Your task to perform on an android device: Go to display settings Image 0: 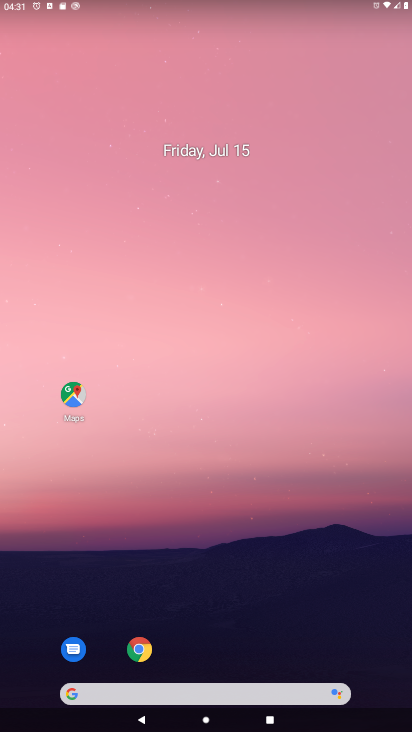
Step 0: drag from (383, 664) to (320, 30)
Your task to perform on an android device: Go to display settings Image 1: 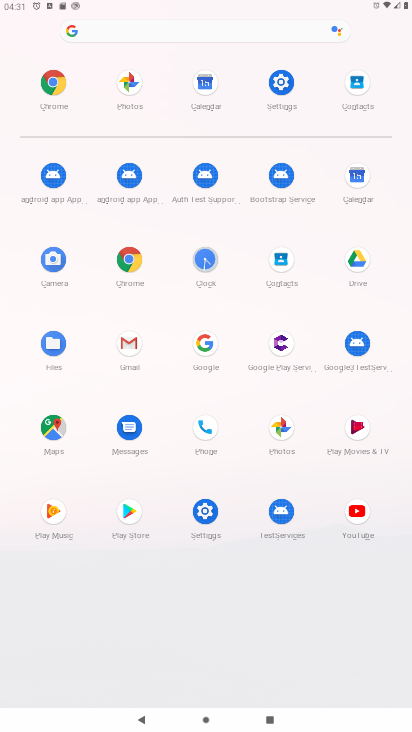
Step 1: click (206, 511)
Your task to perform on an android device: Go to display settings Image 2: 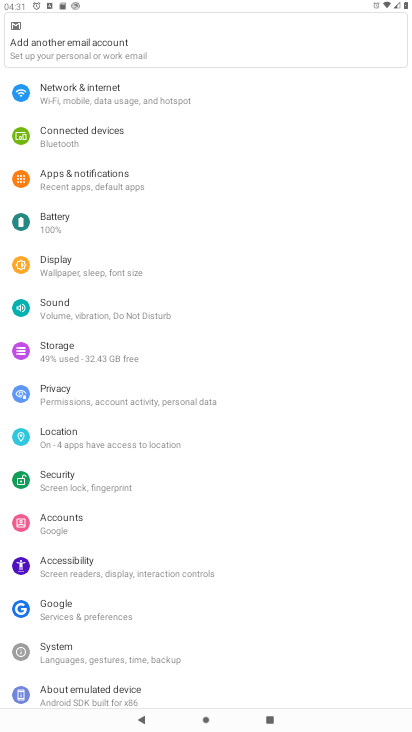
Step 2: click (59, 258)
Your task to perform on an android device: Go to display settings Image 3: 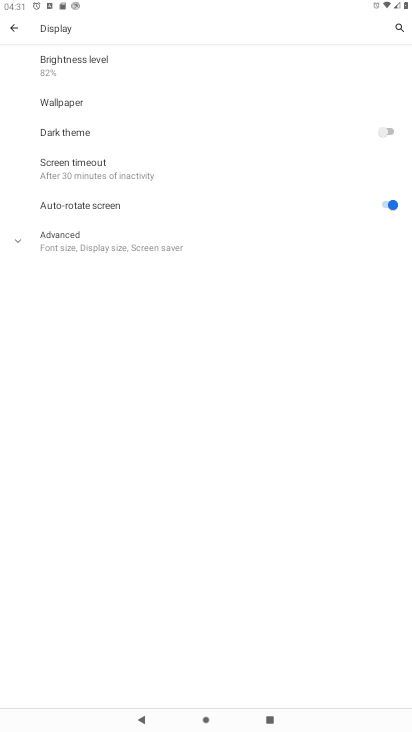
Step 3: click (20, 243)
Your task to perform on an android device: Go to display settings Image 4: 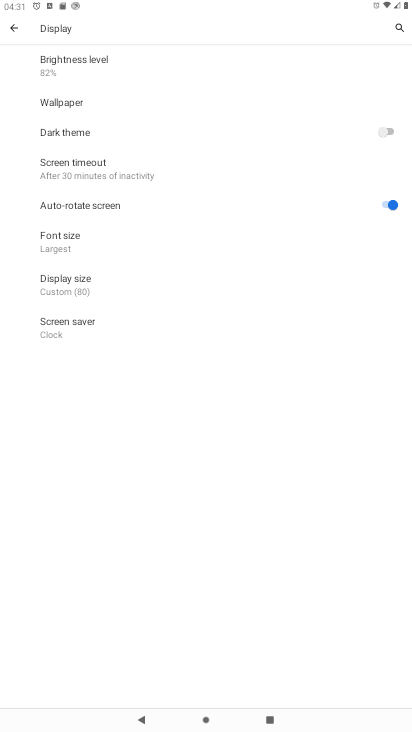
Step 4: task complete